Your task to perform on an android device: toggle notification dots Image 0: 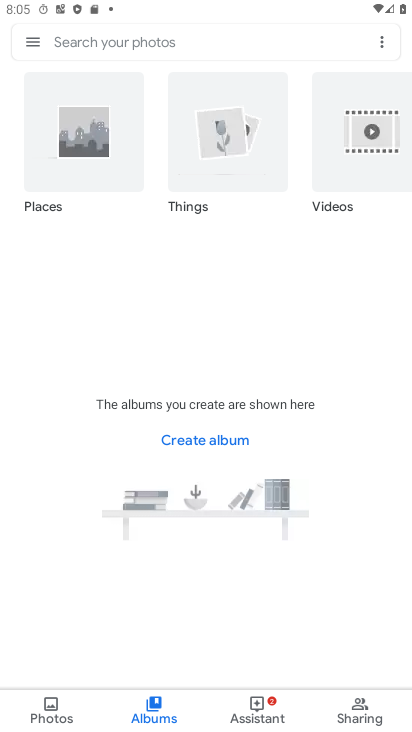
Step 0: press home button
Your task to perform on an android device: toggle notification dots Image 1: 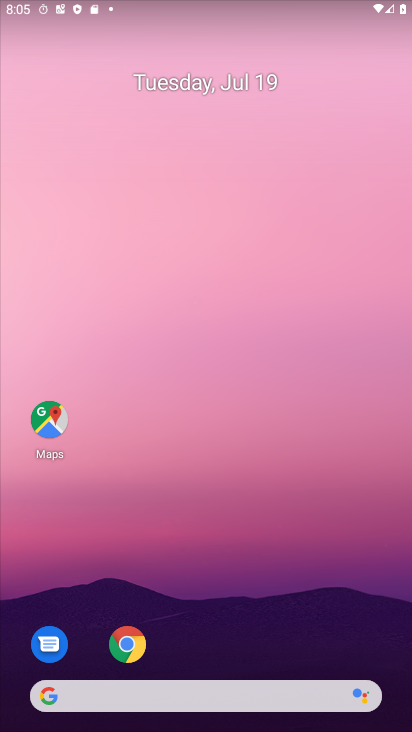
Step 1: drag from (39, 624) to (173, 279)
Your task to perform on an android device: toggle notification dots Image 2: 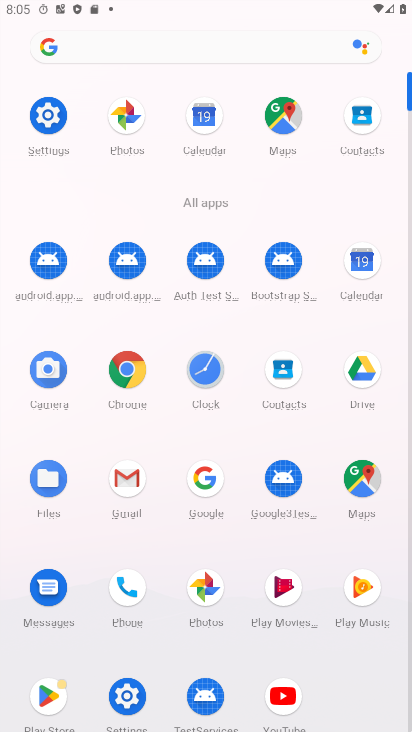
Step 2: click (123, 711)
Your task to perform on an android device: toggle notification dots Image 3: 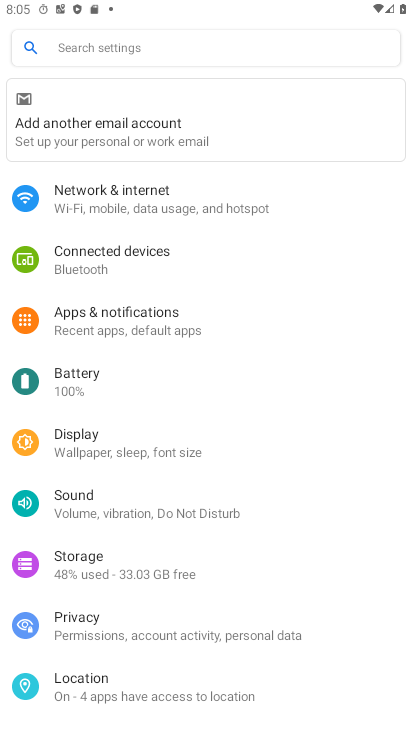
Step 3: click (138, 319)
Your task to perform on an android device: toggle notification dots Image 4: 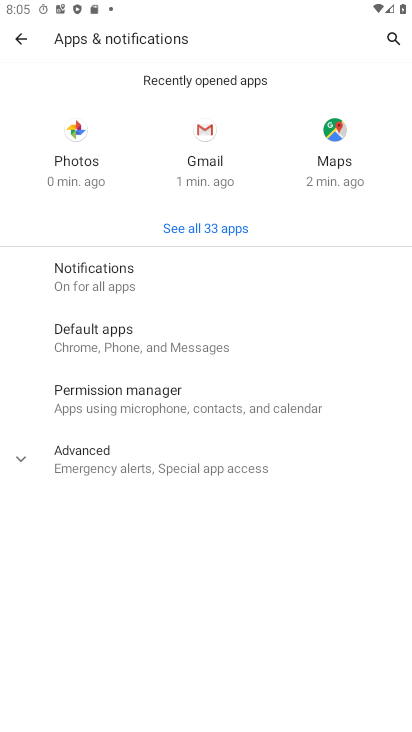
Step 4: click (106, 465)
Your task to perform on an android device: toggle notification dots Image 5: 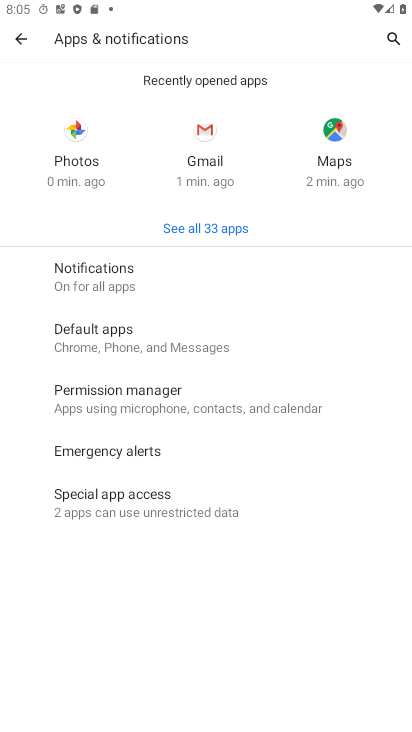
Step 5: click (161, 277)
Your task to perform on an android device: toggle notification dots Image 6: 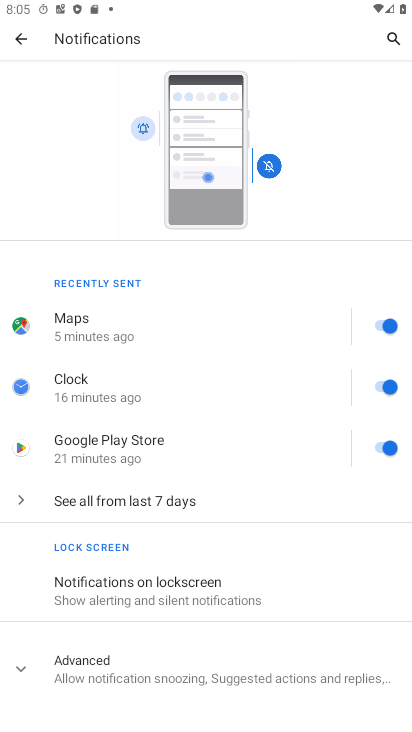
Step 6: drag from (188, 680) to (251, 343)
Your task to perform on an android device: toggle notification dots Image 7: 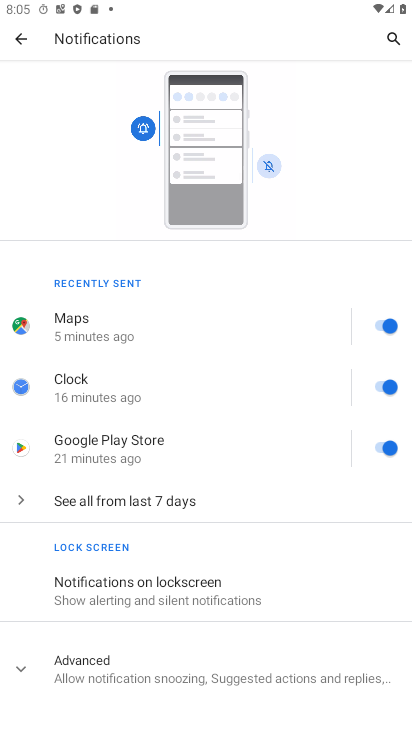
Step 7: click (141, 676)
Your task to perform on an android device: toggle notification dots Image 8: 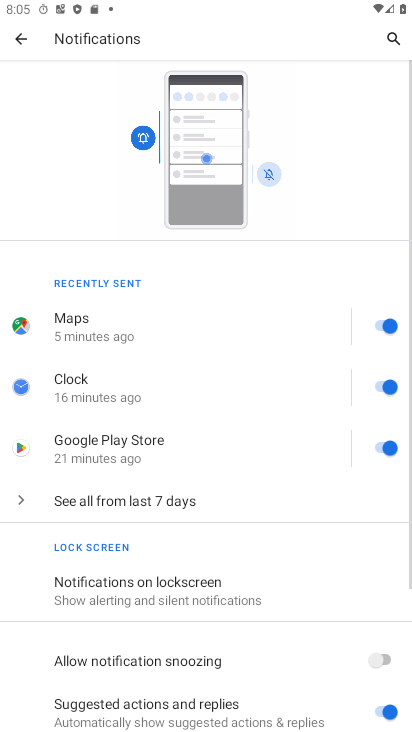
Step 8: task complete